Your task to perform on an android device: Set the phone to "Do not disturb". Image 0: 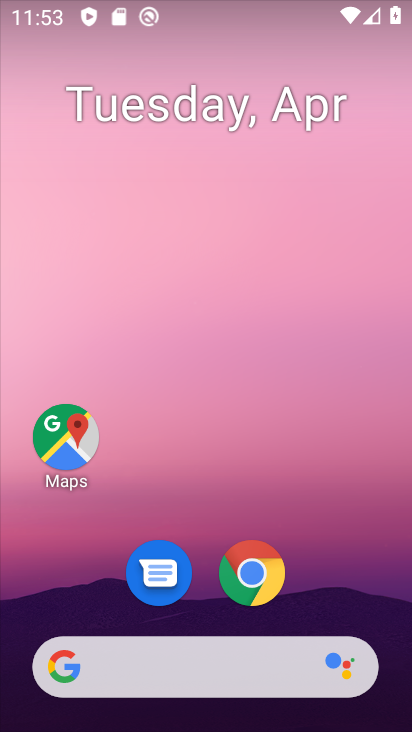
Step 0: drag from (370, 597) to (376, 188)
Your task to perform on an android device: Set the phone to "Do not disturb". Image 1: 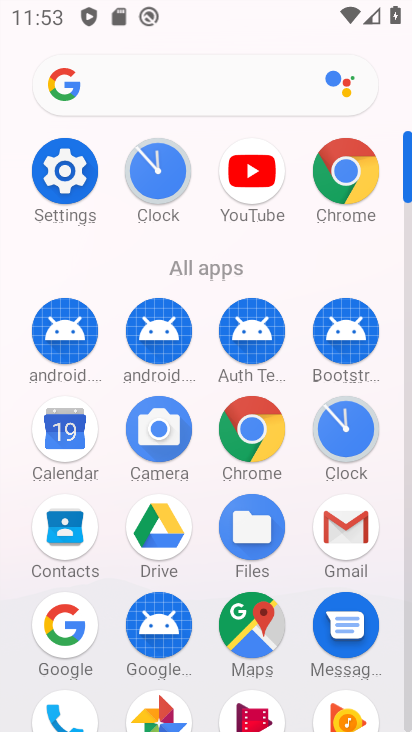
Step 1: click (62, 182)
Your task to perform on an android device: Set the phone to "Do not disturb". Image 2: 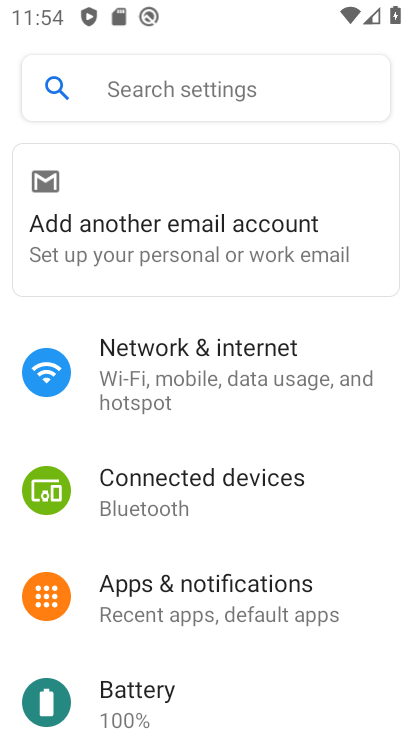
Step 2: drag from (224, 646) to (212, 275)
Your task to perform on an android device: Set the phone to "Do not disturb". Image 3: 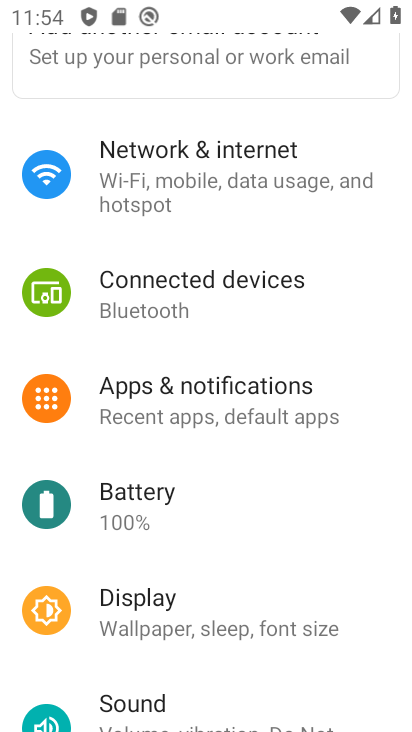
Step 3: drag from (307, 662) to (275, 390)
Your task to perform on an android device: Set the phone to "Do not disturb". Image 4: 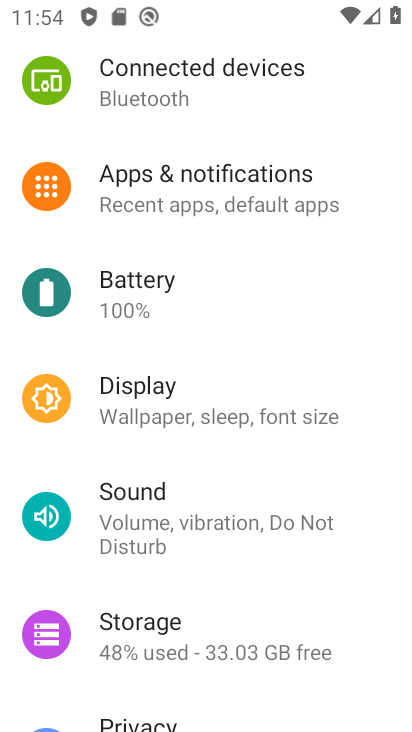
Step 4: click (295, 519)
Your task to perform on an android device: Set the phone to "Do not disturb". Image 5: 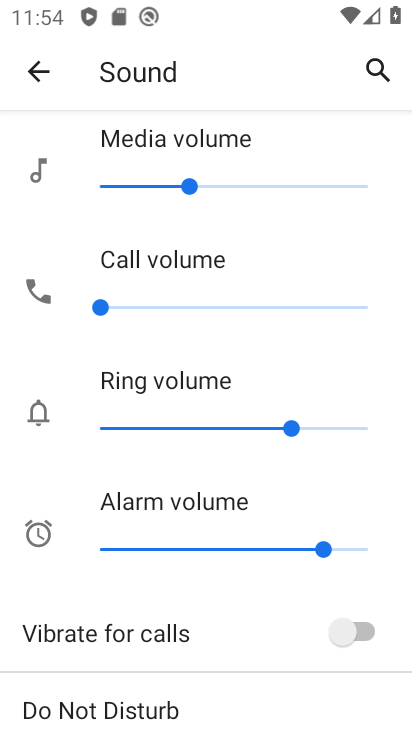
Step 5: drag from (305, 698) to (269, 385)
Your task to perform on an android device: Set the phone to "Do not disturb". Image 6: 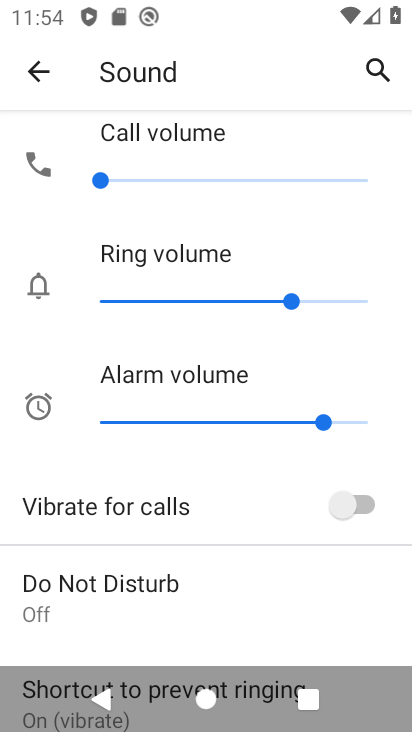
Step 6: click (253, 563)
Your task to perform on an android device: Set the phone to "Do not disturb". Image 7: 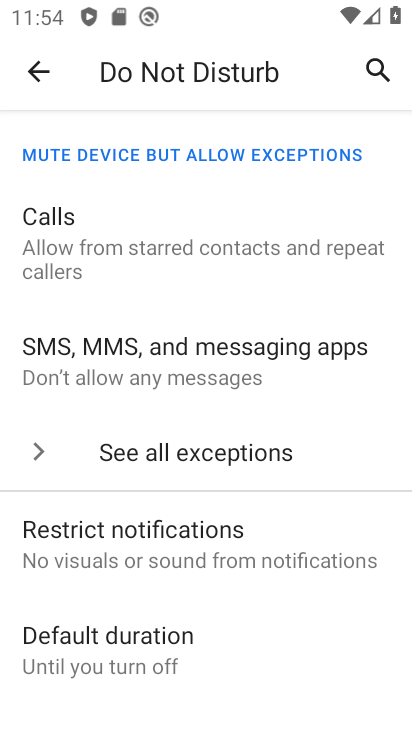
Step 7: drag from (266, 631) to (251, 383)
Your task to perform on an android device: Set the phone to "Do not disturb". Image 8: 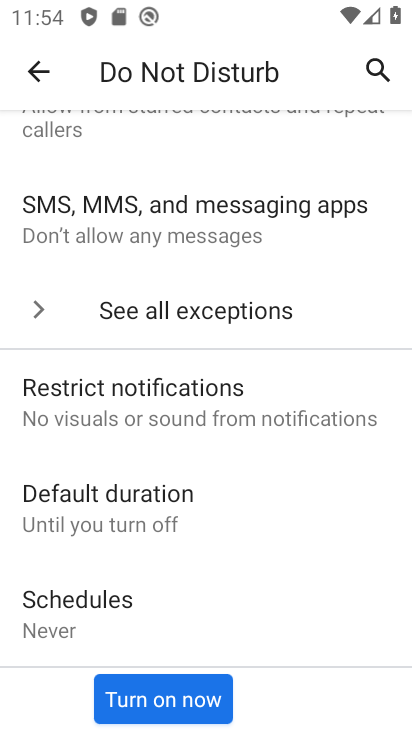
Step 8: click (206, 687)
Your task to perform on an android device: Set the phone to "Do not disturb". Image 9: 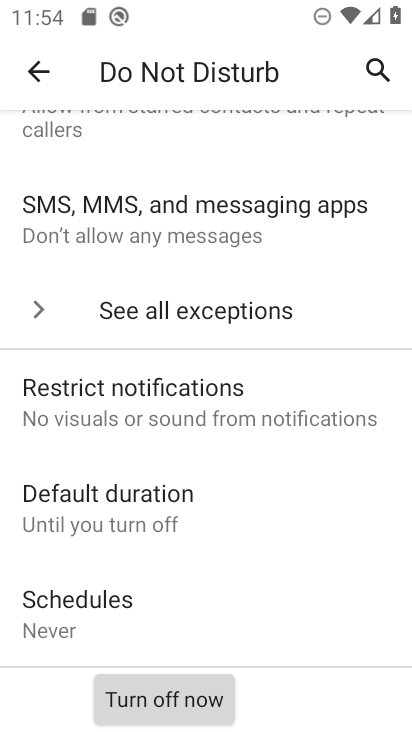
Step 9: task complete